Your task to perform on an android device: Empty the shopping cart on amazon.com. Search for "apple airpods pro" on amazon.com, select the first entry, and add it to the cart. Image 0: 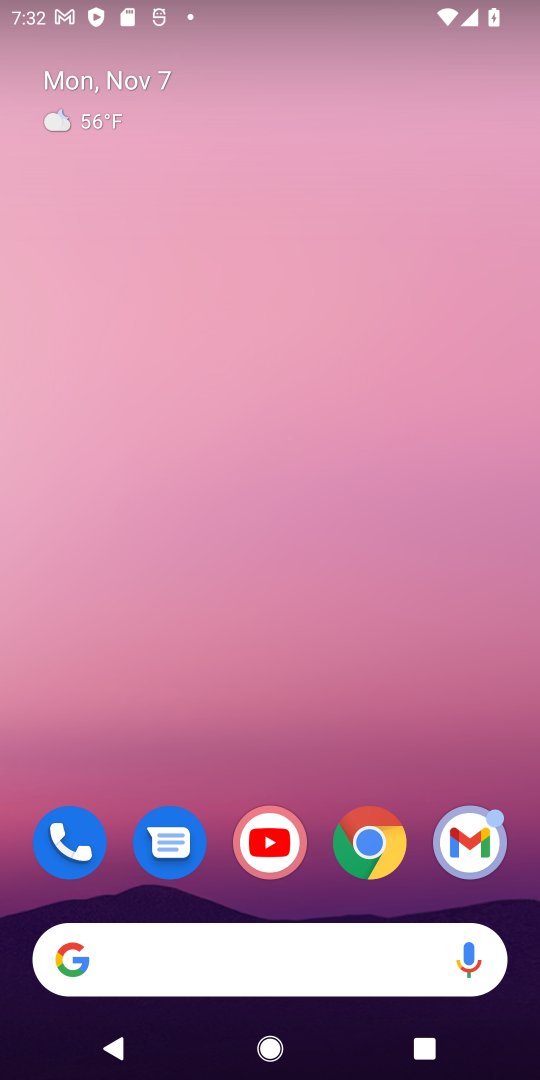
Step 0: click (364, 845)
Your task to perform on an android device: Empty the shopping cart on amazon.com. Search for "apple airpods pro" on amazon.com, select the first entry, and add it to the cart. Image 1: 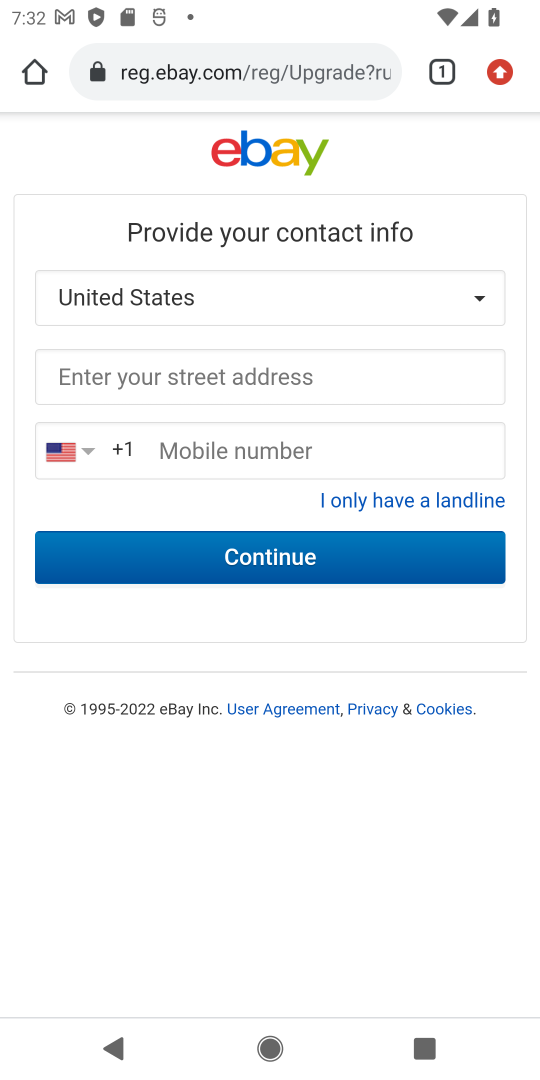
Step 1: click (341, 64)
Your task to perform on an android device: Empty the shopping cart on amazon.com. Search for "apple airpods pro" on amazon.com, select the first entry, and add it to the cart. Image 2: 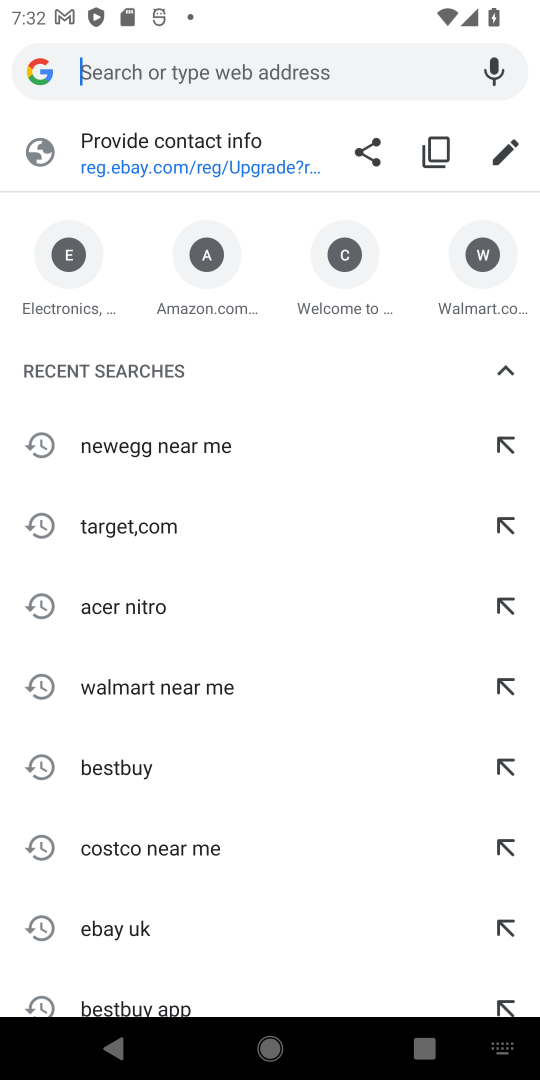
Step 2: click (204, 299)
Your task to perform on an android device: Empty the shopping cart on amazon.com. Search for "apple airpods pro" on amazon.com, select the first entry, and add it to the cart. Image 3: 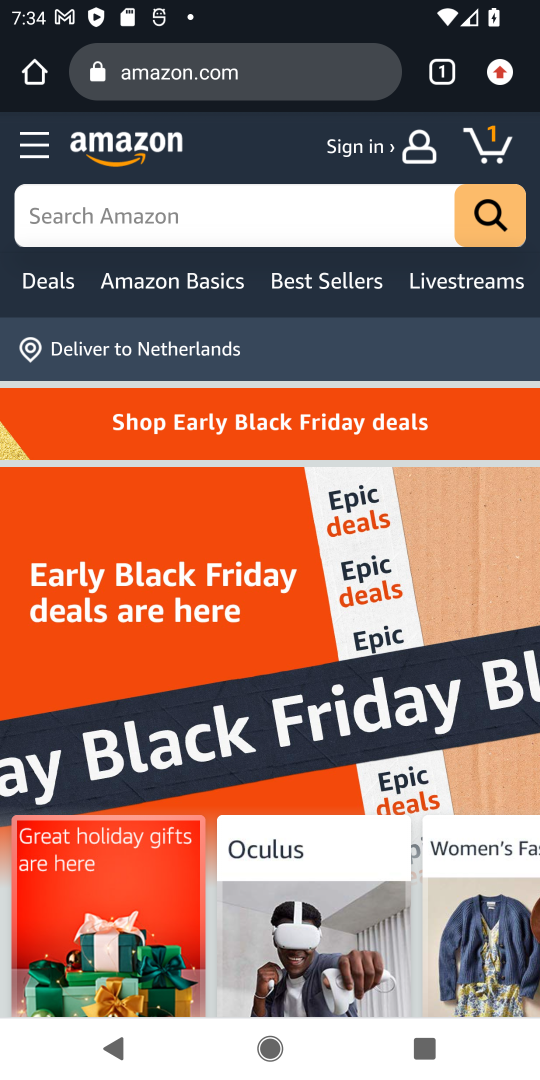
Step 3: click (89, 204)
Your task to perform on an android device: Empty the shopping cart on amazon.com. Search for "apple airpods pro" on amazon.com, select the first entry, and add it to the cart. Image 4: 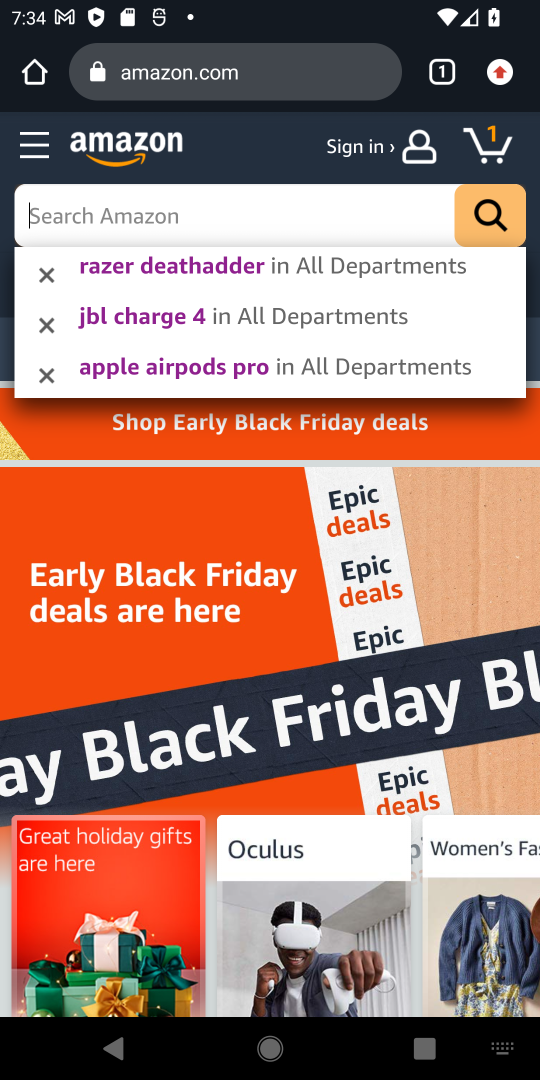
Step 4: press enter
Your task to perform on an android device: Empty the shopping cart on amazon.com. Search for "apple airpods pro" on amazon.com, select the first entry, and add it to the cart. Image 5: 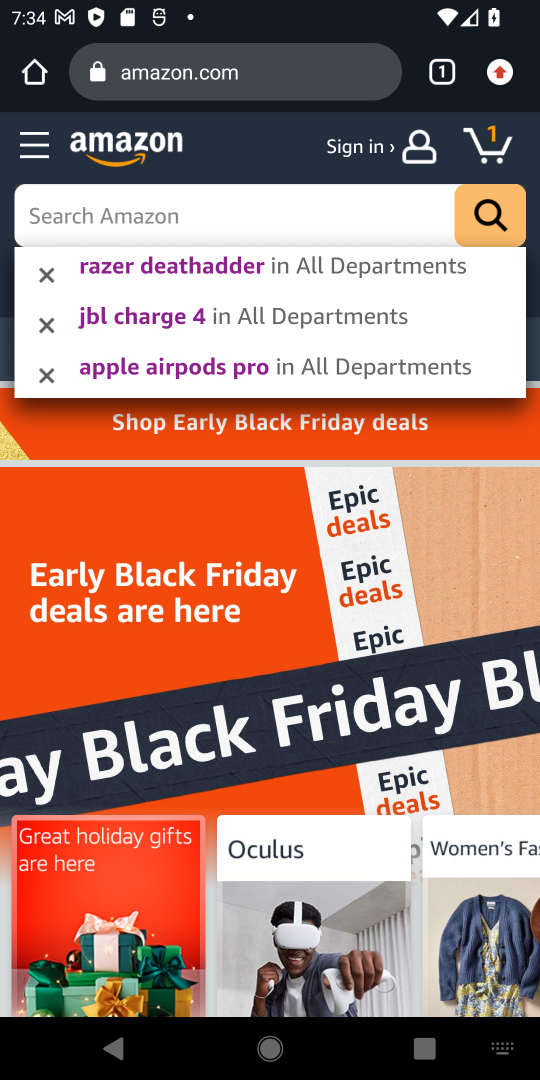
Step 5: type "apple airpods pro"
Your task to perform on an android device: Empty the shopping cart on amazon.com. Search for "apple airpods pro" on amazon.com, select the first entry, and add it to the cart. Image 6: 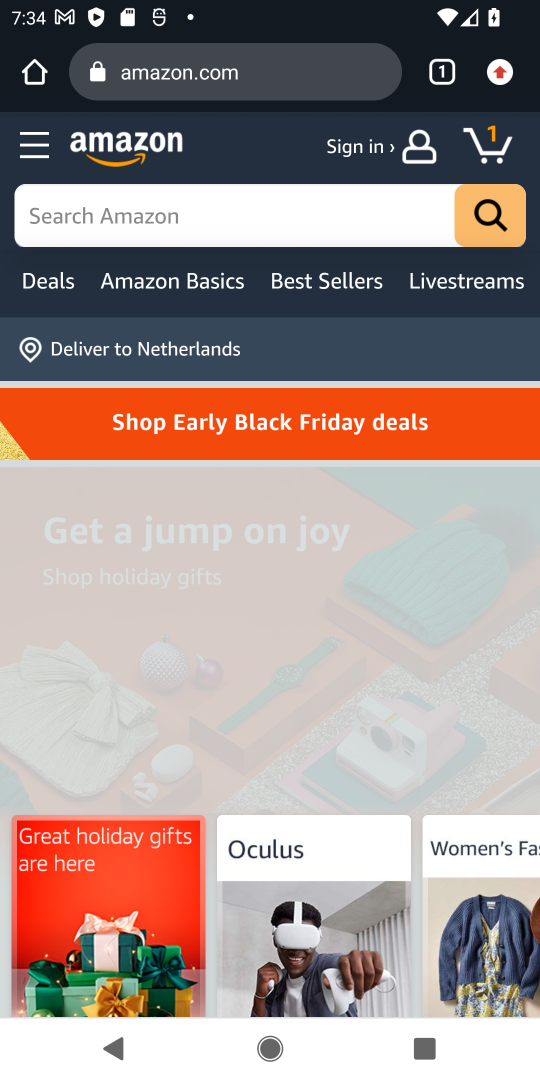
Step 6: click (230, 224)
Your task to perform on an android device: Empty the shopping cart on amazon.com. Search for "apple airpods pro" on amazon.com, select the first entry, and add it to the cart. Image 7: 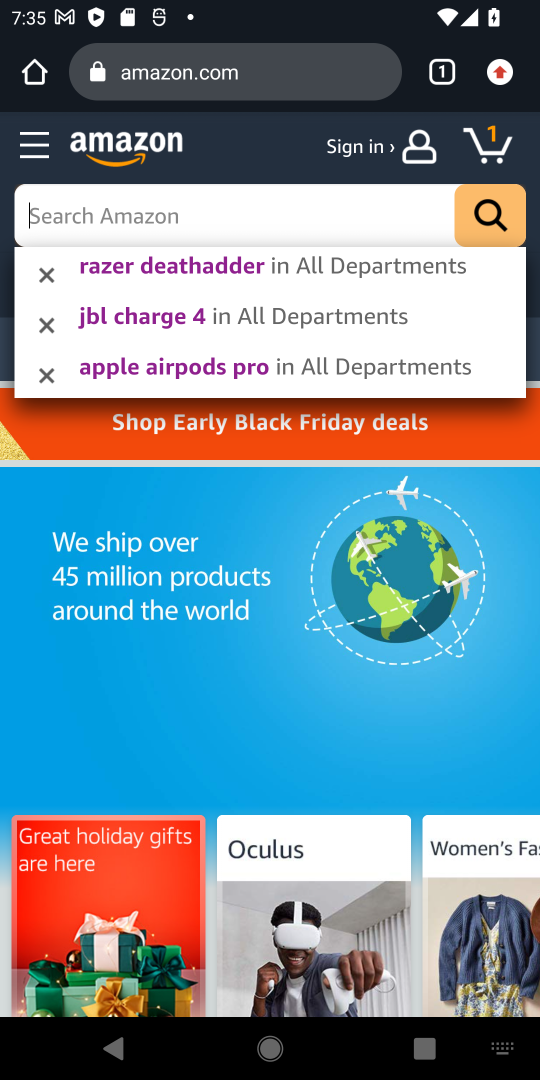
Step 7: type "apple airpods pro"
Your task to perform on an android device: Empty the shopping cart on amazon.com. Search for "apple airpods pro" on amazon.com, select the first entry, and add it to the cart. Image 8: 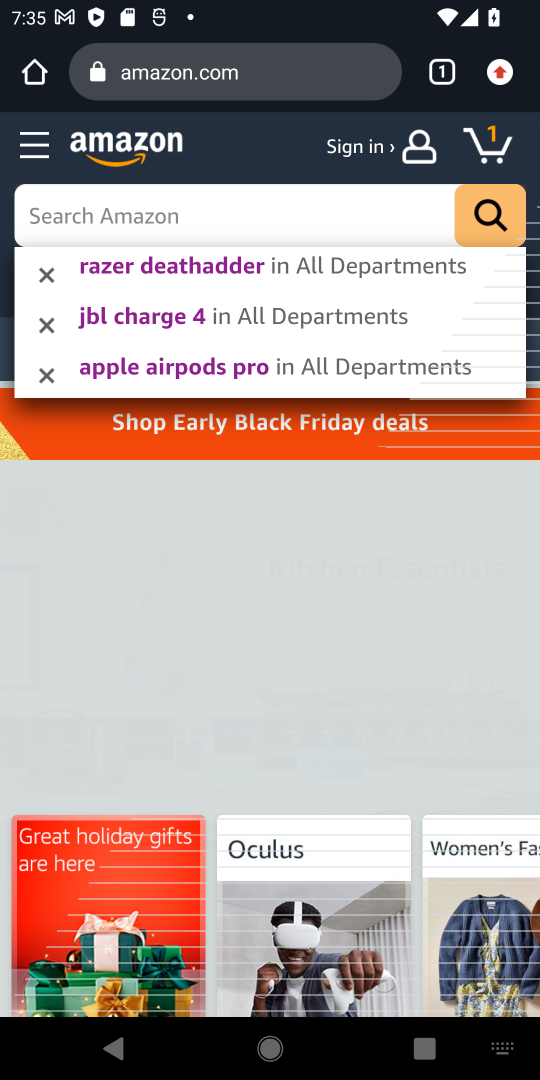
Step 8: press enter
Your task to perform on an android device: Empty the shopping cart on amazon.com. Search for "apple airpods pro" on amazon.com, select the first entry, and add it to the cart. Image 9: 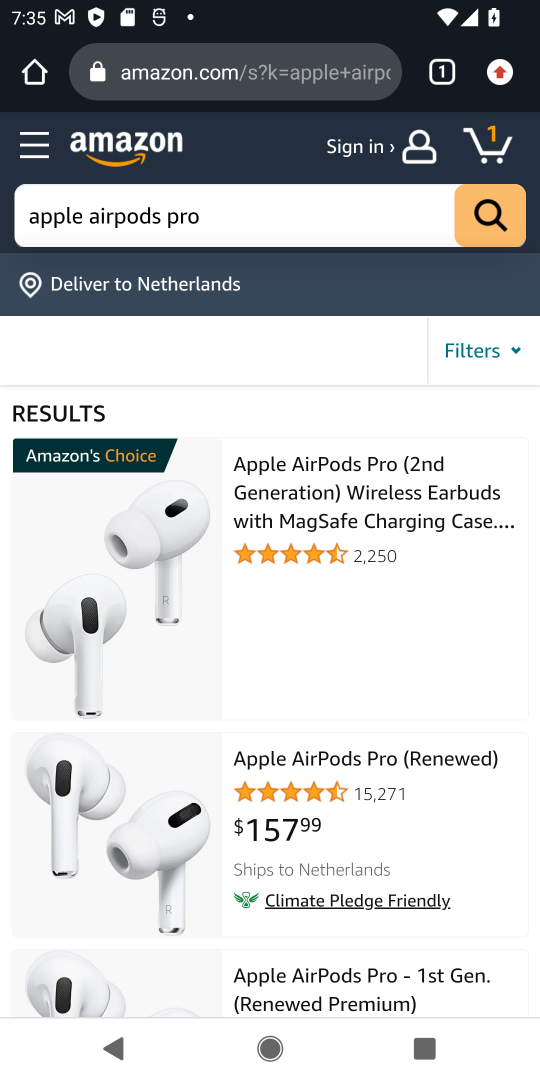
Step 9: click (345, 499)
Your task to perform on an android device: Empty the shopping cart on amazon.com. Search for "apple airpods pro" on amazon.com, select the first entry, and add it to the cart. Image 10: 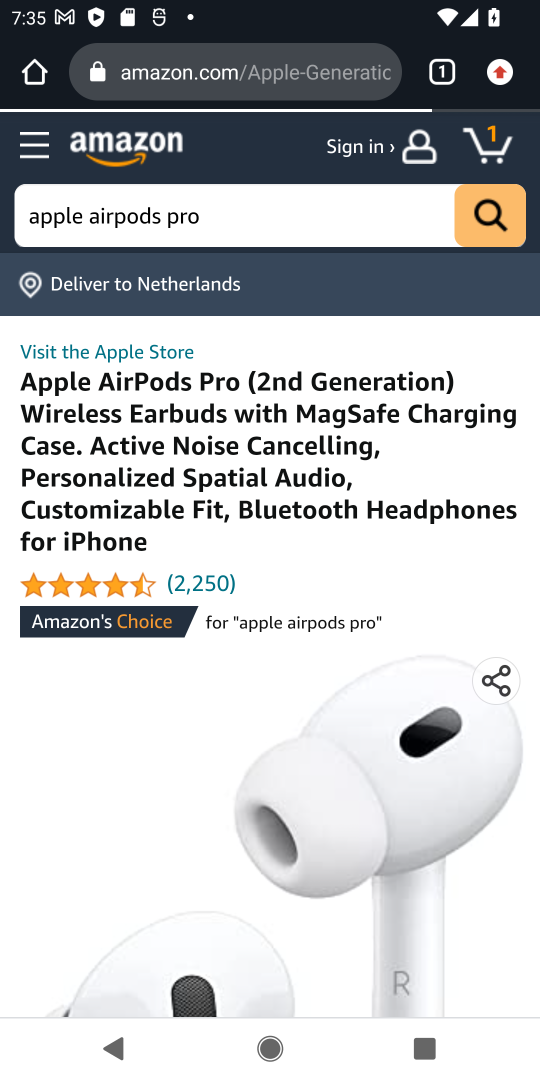
Step 10: task complete